Your task to perform on an android device: Go to Android settings Image 0: 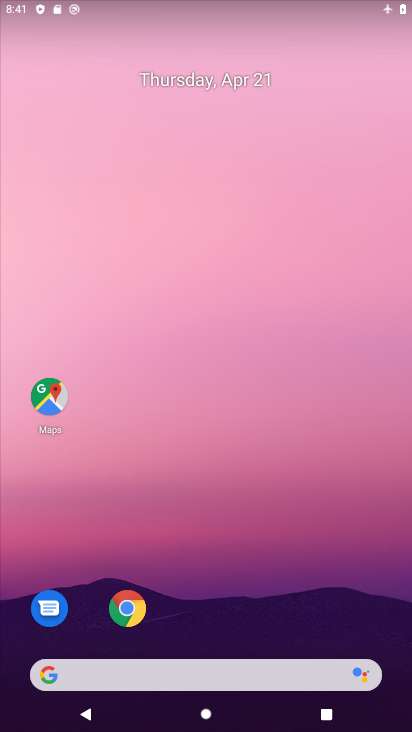
Step 0: drag from (281, 553) to (278, 2)
Your task to perform on an android device: Go to Android settings Image 1: 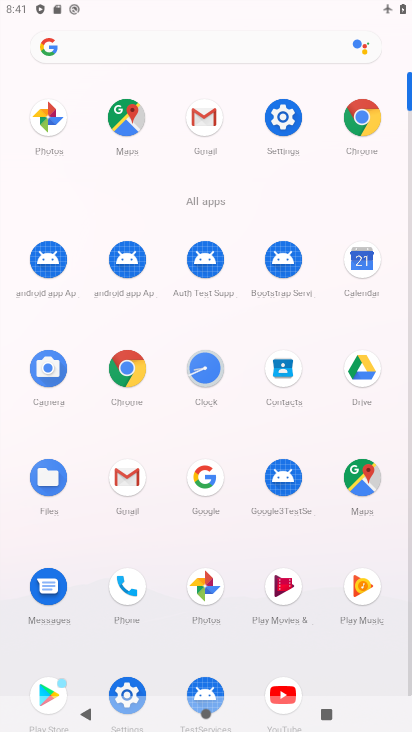
Step 1: click (286, 120)
Your task to perform on an android device: Go to Android settings Image 2: 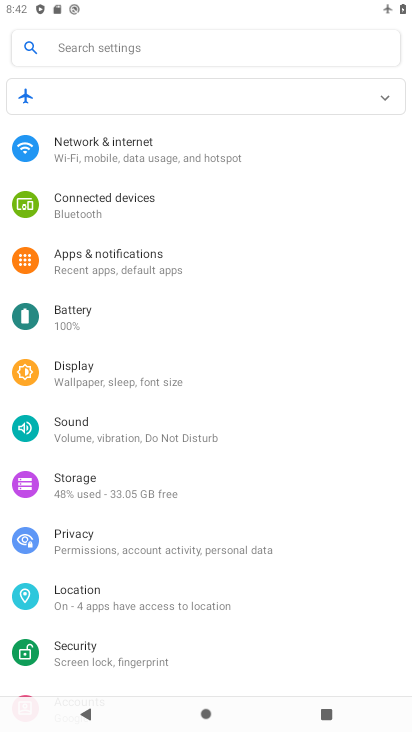
Step 2: task complete